Your task to perform on an android device: open a new tab in the chrome app Image 0: 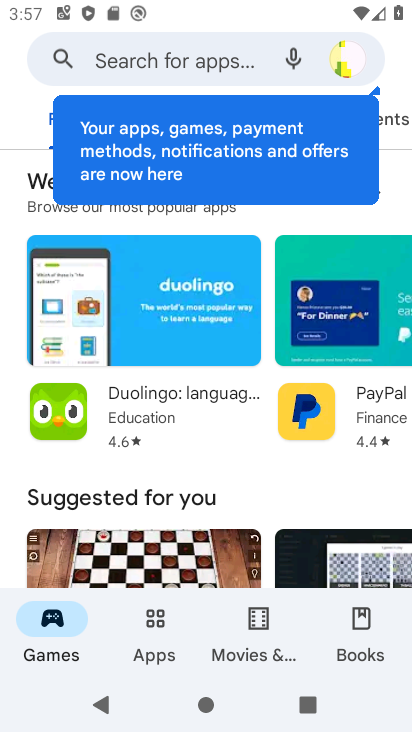
Step 0: press home button
Your task to perform on an android device: open a new tab in the chrome app Image 1: 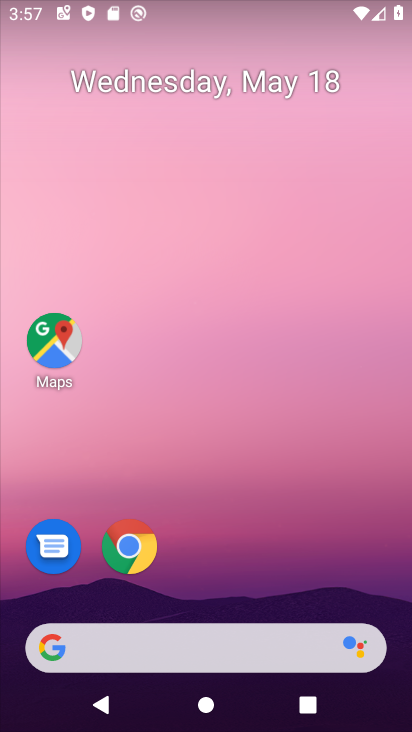
Step 1: click (140, 546)
Your task to perform on an android device: open a new tab in the chrome app Image 2: 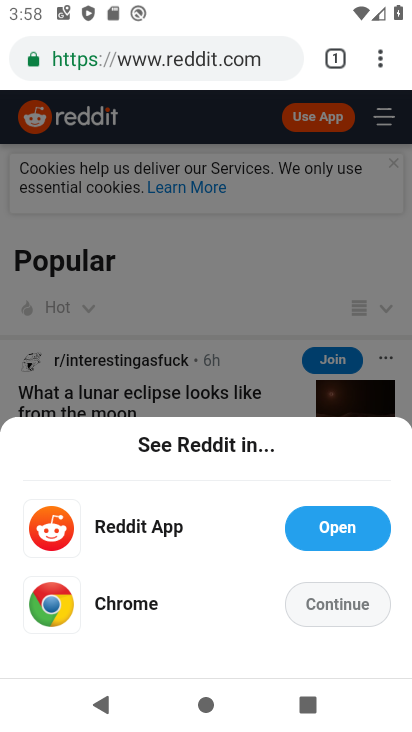
Step 2: click (380, 55)
Your task to perform on an android device: open a new tab in the chrome app Image 3: 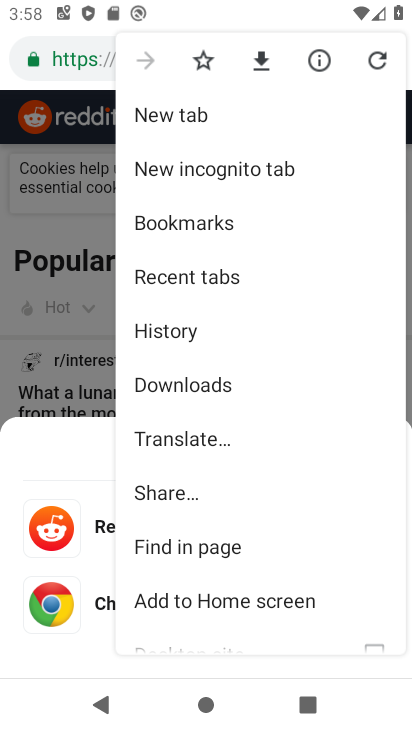
Step 3: click (180, 117)
Your task to perform on an android device: open a new tab in the chrome app Image 4: 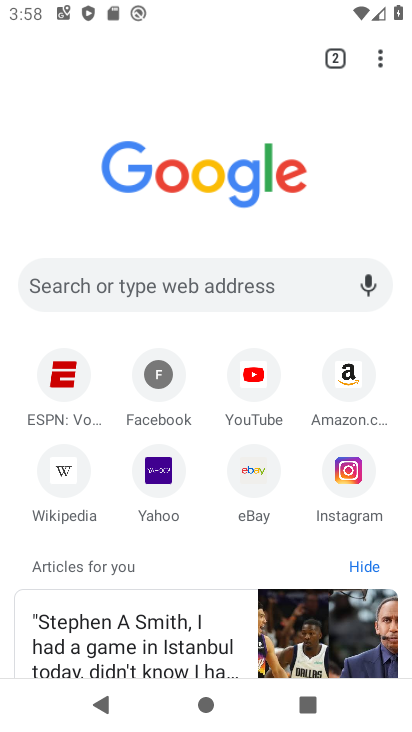
Step 4: task complete